Your task to perform on an android device: clear all cookies in the chrome app Image 0: 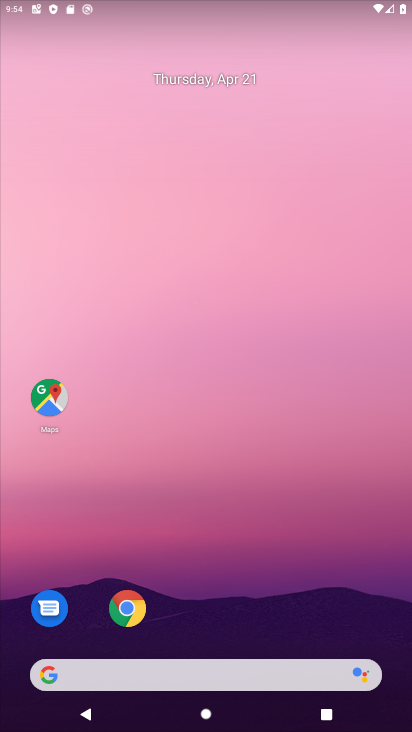
Step 0: click (139, 615)
Your task to perform on an android device: clear all cookies in the chrome app Image 1: 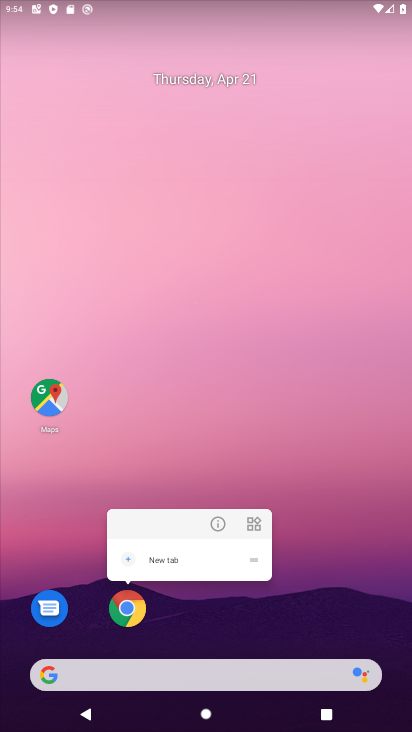
Step 1: click (136, 610)
Your task to perform on an android device: clear all cookies in the chrome app Image 2: 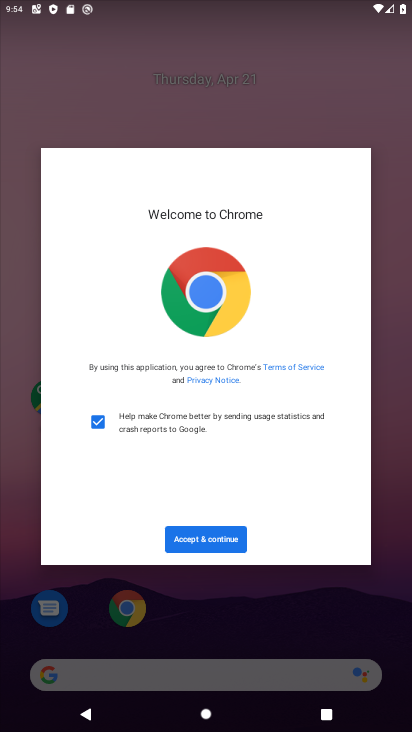
Step 2: click (217, 538)
Your task to perform on an android device: clear all cookies in the chrome app Image 3: 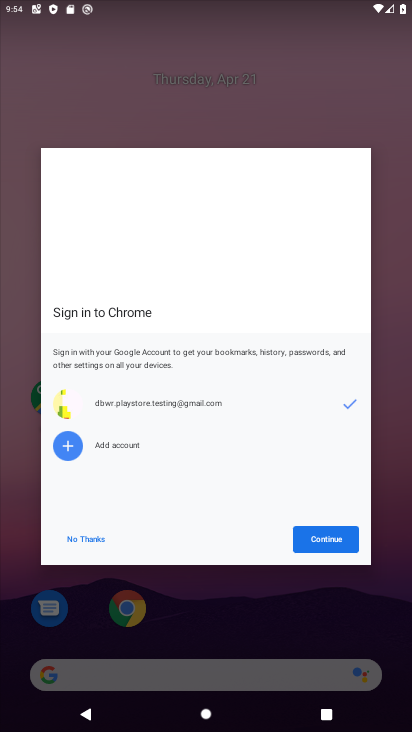
Step 3: click (338, 544)
Your task to perform on an android device: clear all cookies in the chrome app Image 4: 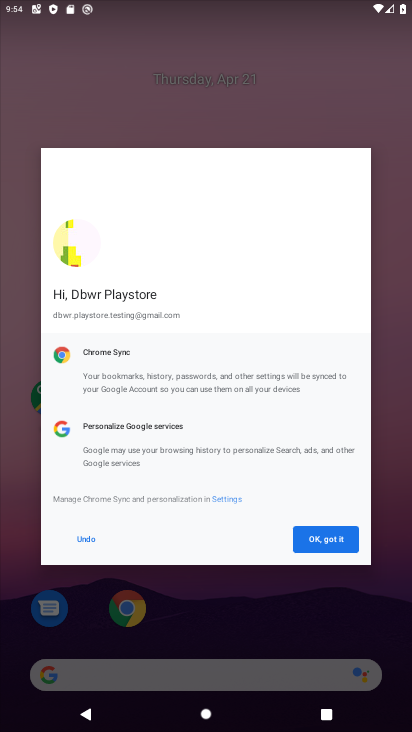
Step 4: click (339, 544)
Your task to perform on an android device: clear all cookies in the chrome app Image 5: 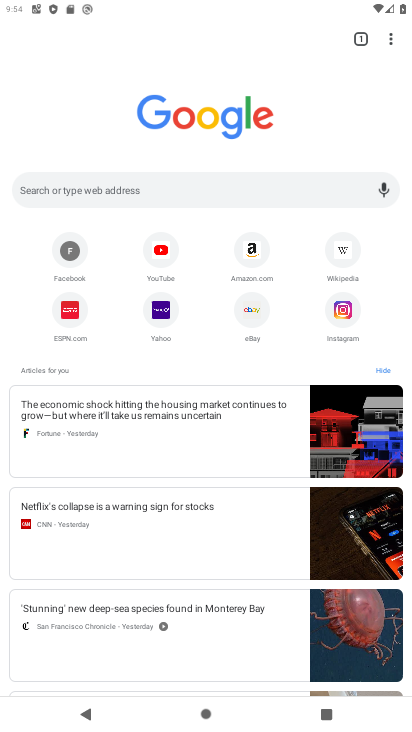
Step 5: click (166, 195)
Your task to perform on an android device: clear all cookies in the chrome app Image 6: 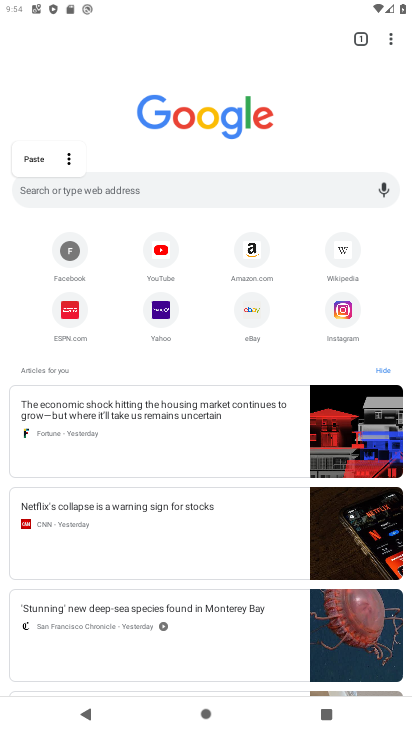
Step 6: task complete